Your task to perform on an android device: turn on notifications settings in the gmail app Image 0: 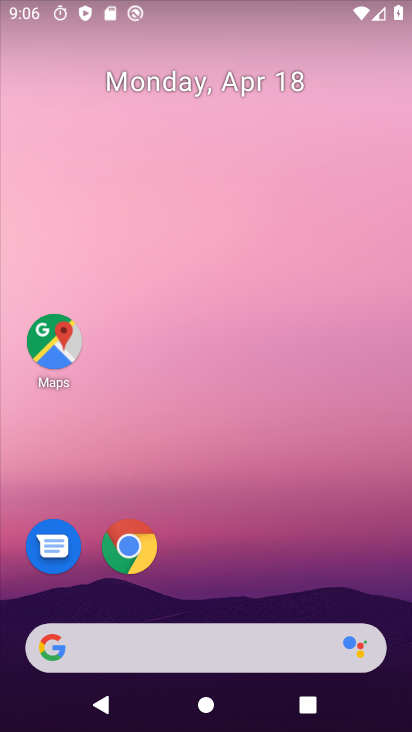
Step 0: drag from (253, 503) to (354, 1)
Your task to perform on an android device: turn on notifications settings in the gmail app Image 1: 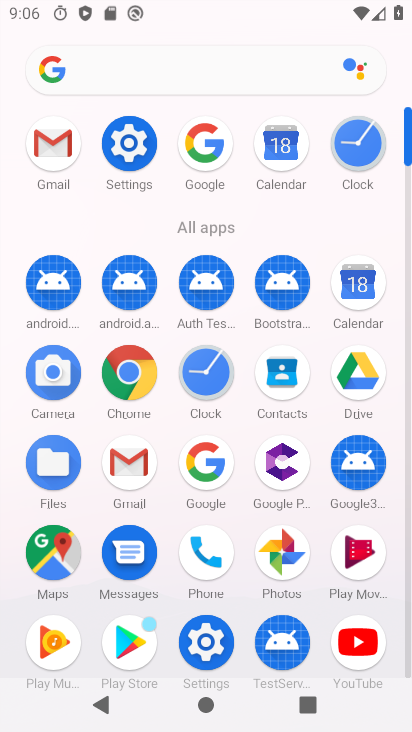
Step 1: click (47, 153)
Your task to perform on an android device: turn on notifications settings in the gmail app Image 2: 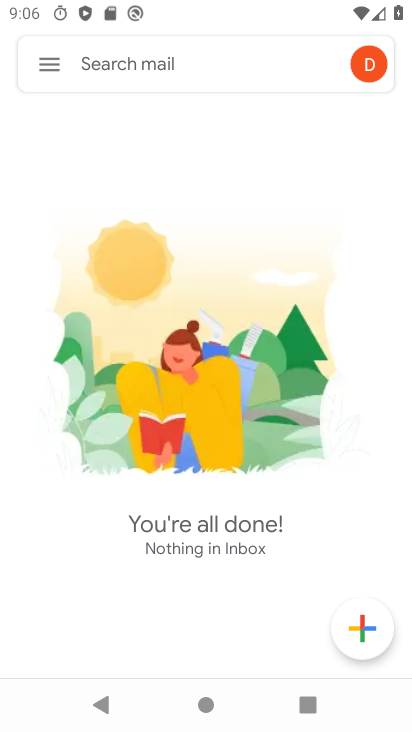
Step 2: click (61, 77)
Your task to perform on an android device: turn on notifications settings in the gmail app Image 3: 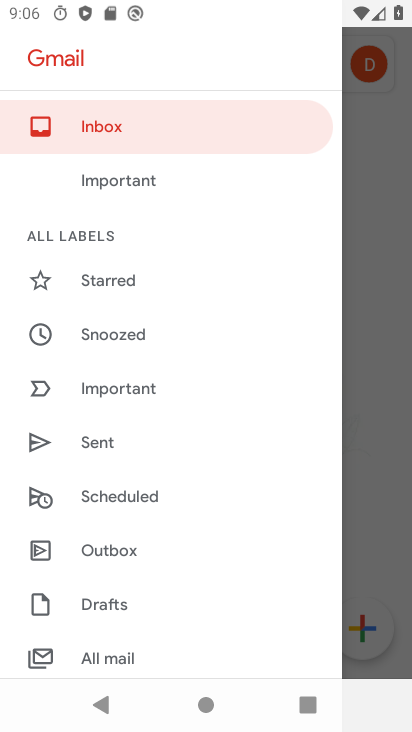
Step 3: drag from (200, 593) to (229, 236)
Your task to perform on an android device: turn on notifications settings in the gmail app Image 4: 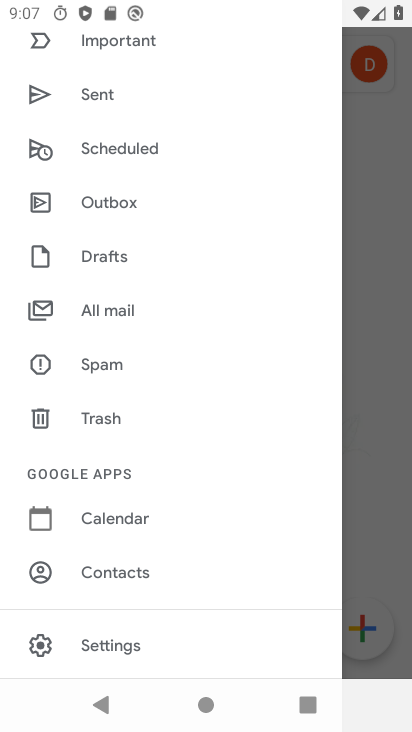
Step 4: drag from (143, 586) to (215, 220)
Your task to perform on an android device: turn on notifications settings in the gmail app Image 5: 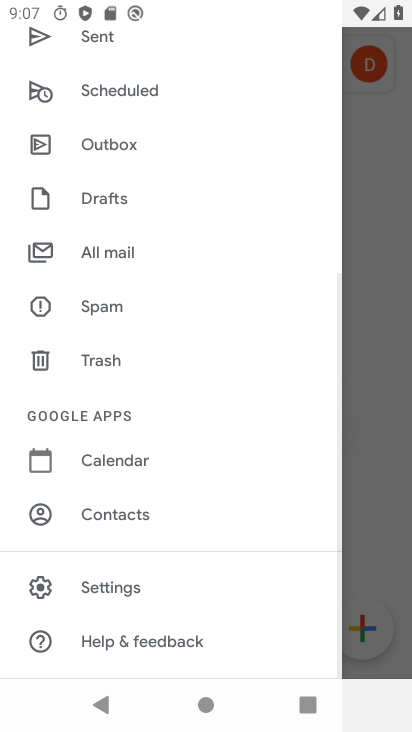
Step 5: click (87, 585)
Your task to perform on an android device: turn on notifications settings in the gmail app Image 6: 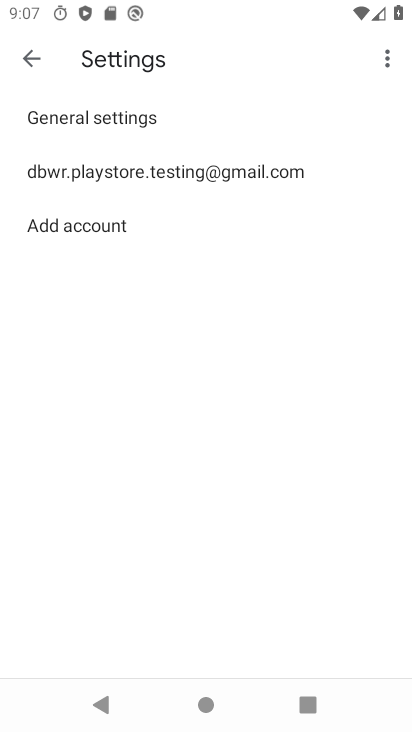
Step 6: click (189, 166)
Your task to perform on an android device: turn on notifications settings in the gmail app Image 7: 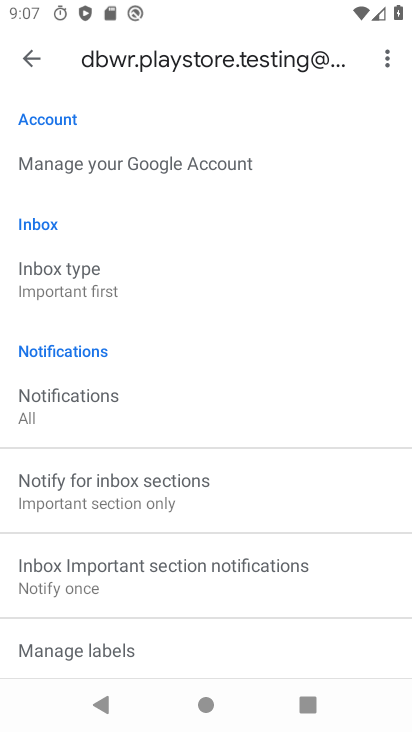
Step 7: click (80, 396)
Your task to perform on an android device: turn on notifications settings in the gmail app Image 8: 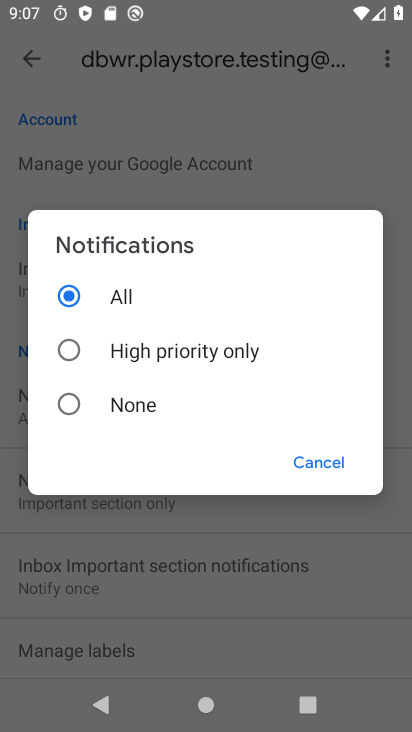
Step 8: click (62, 347)
Your task to perform on an android device: turn on notifications settings in the gmail app Image 9: 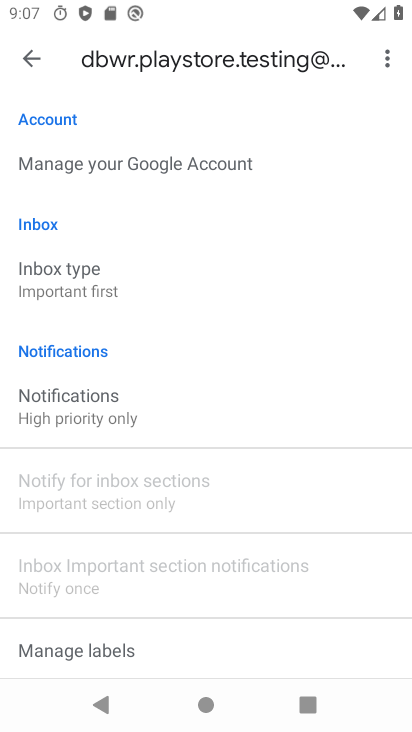
Step 9: task complete